Your task to perform on an android device: Open wifi settings Image 0: 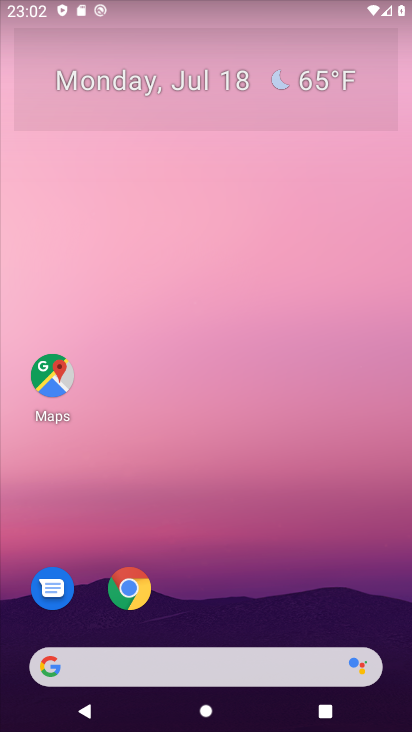
Step 0: press home button
Your task to perform on an android device: Open wifi settings Image 1: 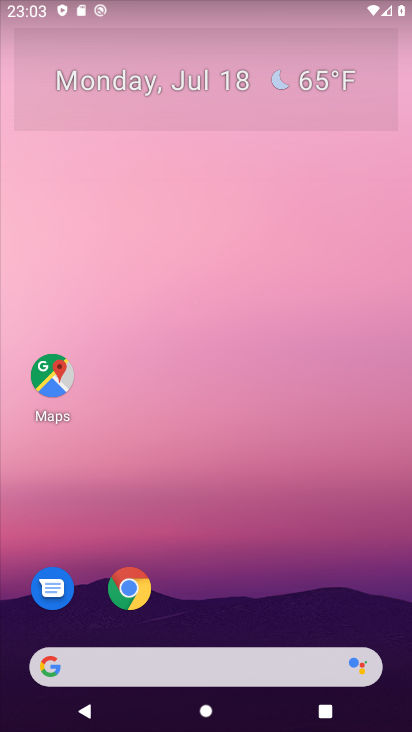
Step 1: drag from (293, 528) to (248, 52)
Your task to perform on an android device: Open wifi settings Image 2: 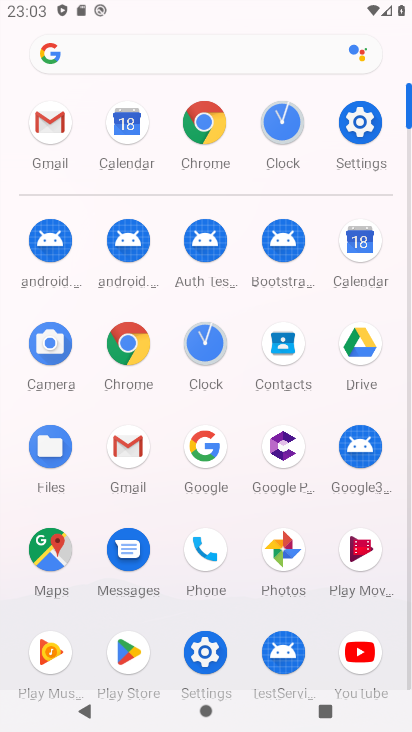
Step 2: click (361, 114)
Your task to perform on an android device: Open wifi settings Image 3: 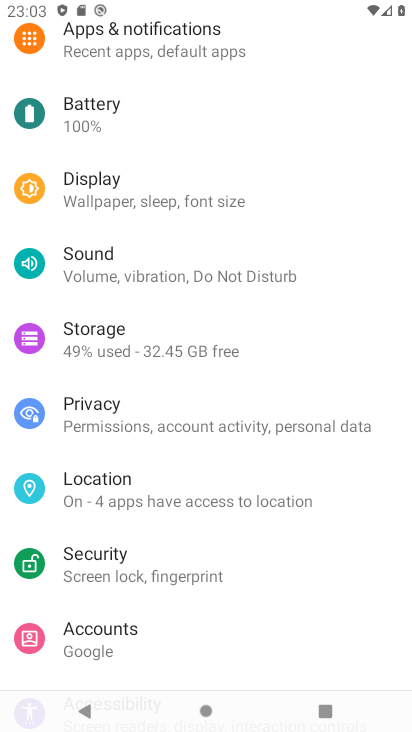
Step 3: drag from (196, 83) to (151, 481)
Your task to perform on an android device: Open wifi settings Image 4: 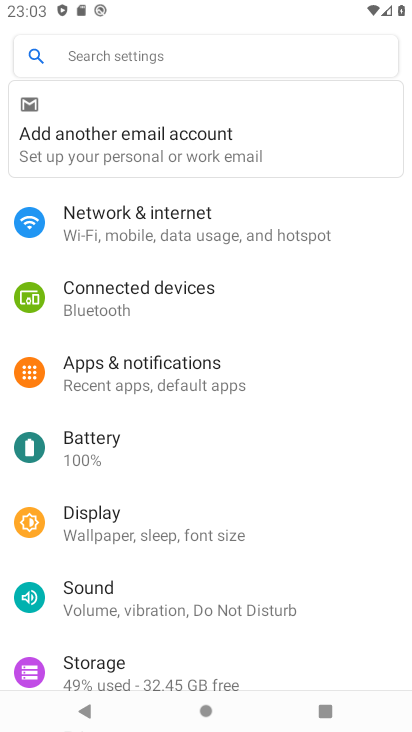
Step 4: click (145, 219)
Your task to perform on an android device: Open wifi settings Image 5: 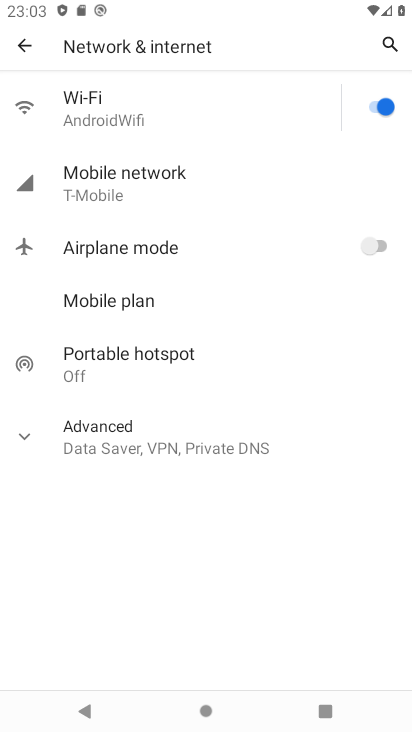
Step 5: click (89, 103)
Your task to perform on an android device: Open wifi settings Image 6: 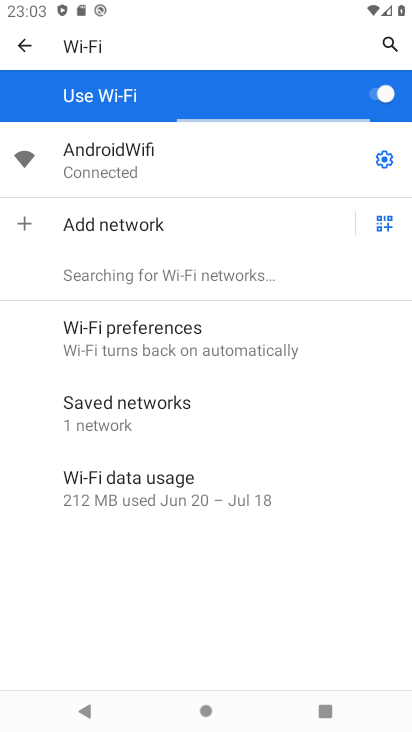
Step 6: task complete